Your task to perform on an android device: set default search engine in the chrome app Image 0: 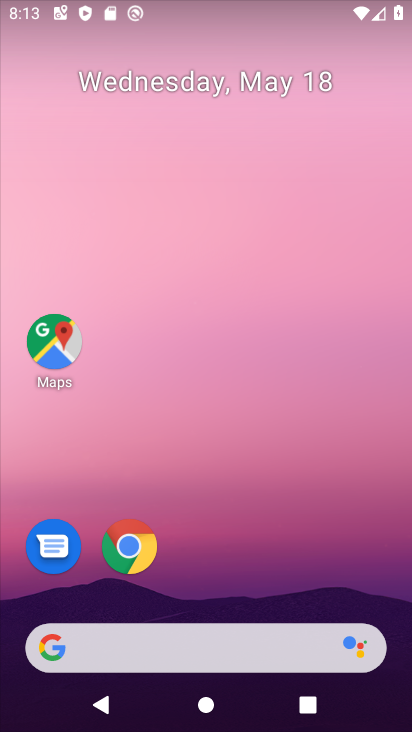
Step 0: drag from (265, 661) to (306, 165)
Your task to perform on an android device: set default search engine in the chrome app Image 1: 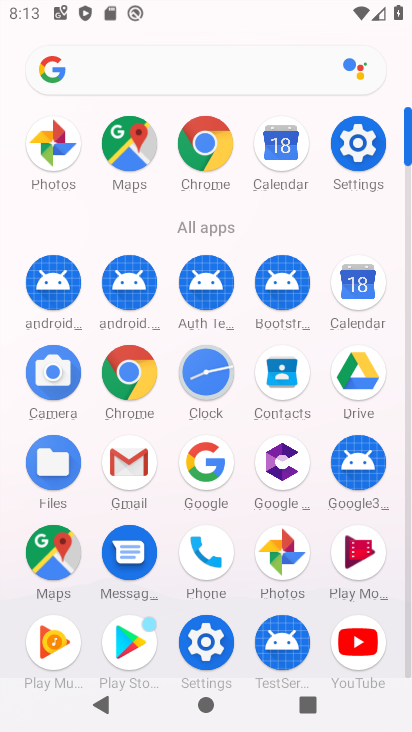
Step 1: click (208, 163)
Your task to perform on an android device: set default search engine in the chrome app Image 2: 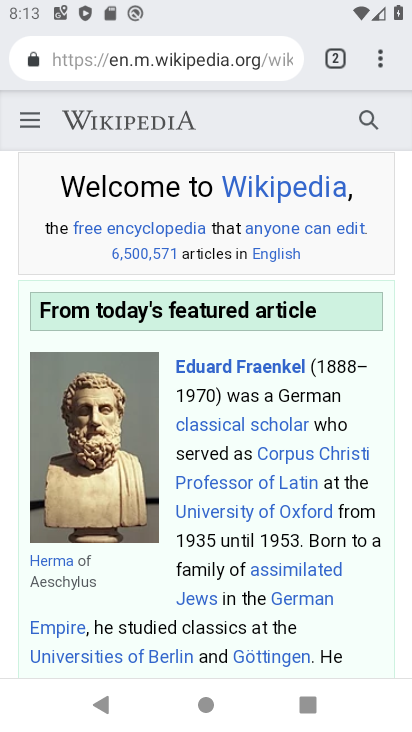
Step 2: click (379, 68)
Your task to perform on an android device: set default search engine in the chrome app Image 3: 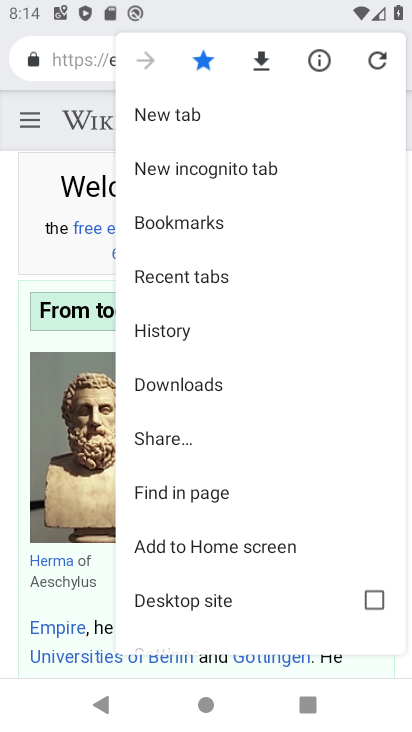
Step 3: drag from (188, 567) to (255, 411)
Your task to perform on an android device: set default search engine in the chrome app Image 4: 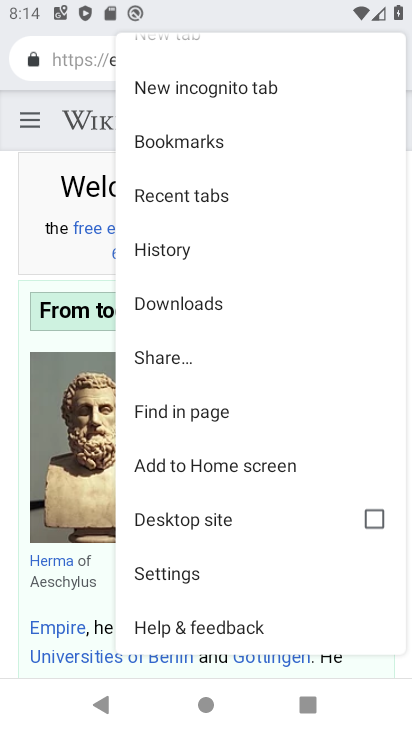
Step 4: click (190, 563)
Your task to perform on an android device: set default search engine in the chrome app Image 5: 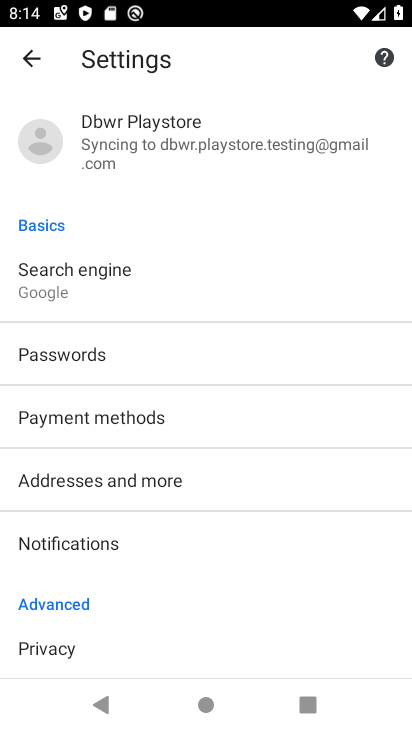
Step 5: click (90, 283)
Your task to perform on an android device: set default search engine in the chrome app Image 6: 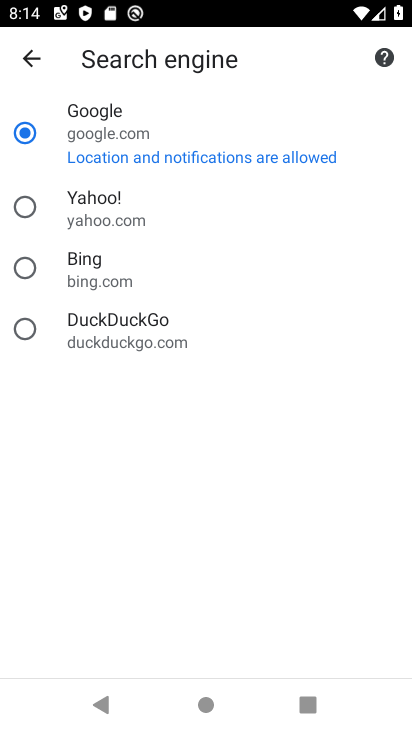
Step 6: task complete